Your task to perform on an android device: delete browsing data in the chrome app Image 0: 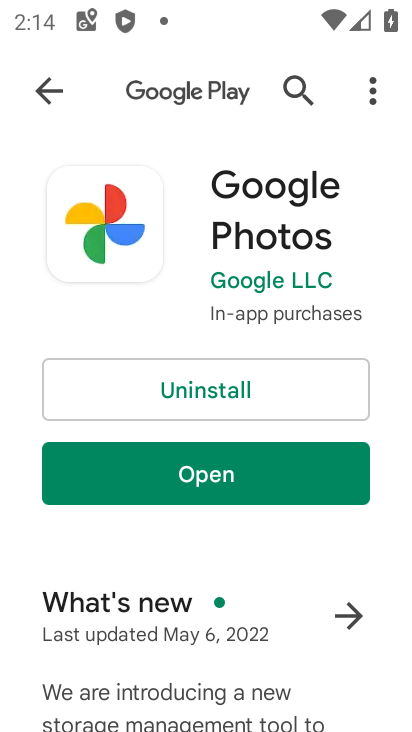
Step 0: click (216, 468)
Your task to perform on an android device: delete browsing data in the chrome app Image 1: 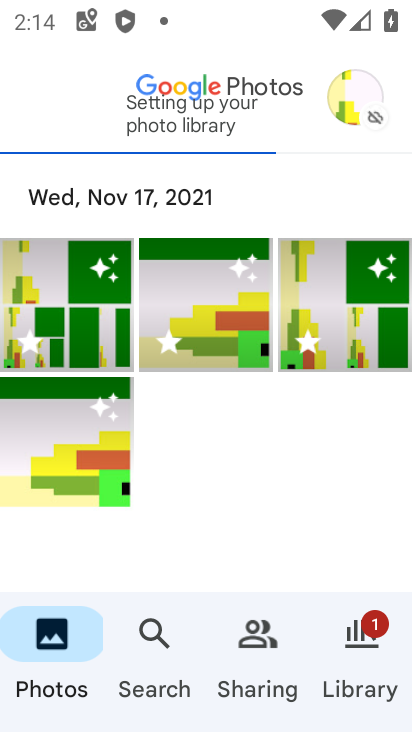
Step 1: press home button
Your task to perform on an android device: delete browsing data in the chrome app Image 2: 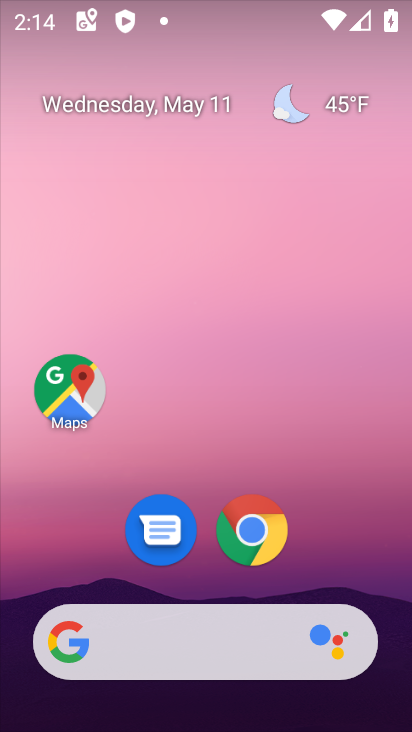
Step 2: drag from (367, 554) to (202, 8)
Your task to perform on an android device: delete browsing data in the chrome app Image 3: 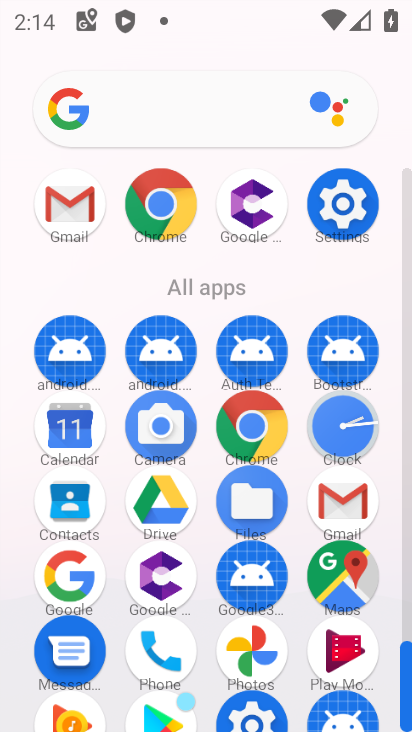
Step 3: click (163, 212)
Your task to perform on an android device: delete browsing data in the chrome app Image 4: 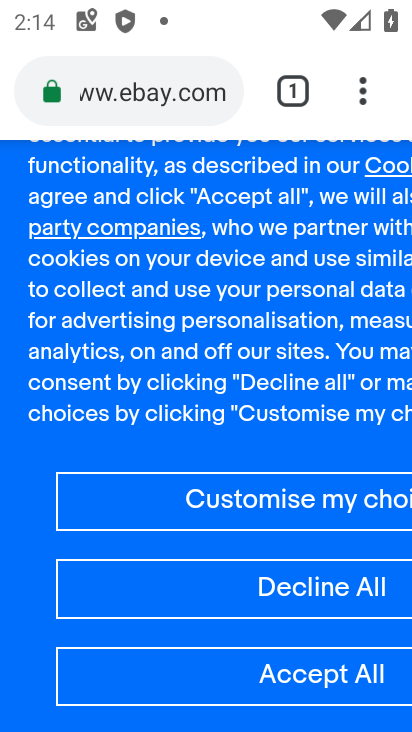
Step 4: drag from (360, 100) to (69, 508)
Your task to perform on an android device: delete browsing data in the chrome app Image 5: 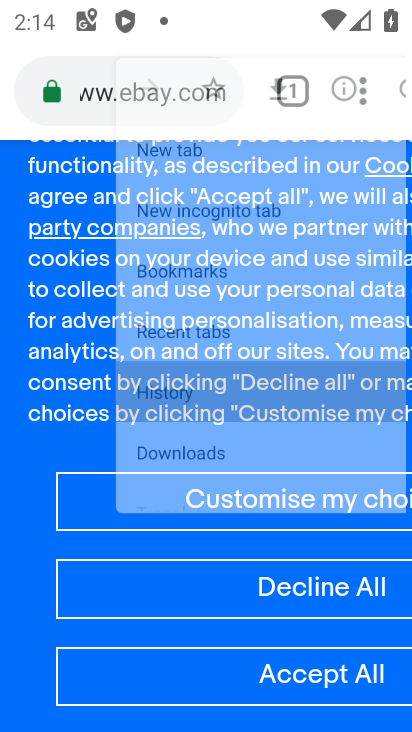
Step 5: click (72, 505)
Your task to perform on an android device: delete browsing data in the chrome app Image 6: 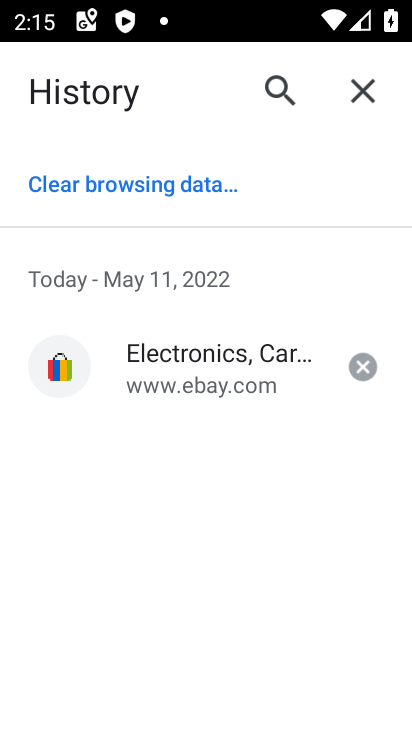
Step 6: click (357, 365)
Your task to perform on an android device: delete browsing data in the chrome app Image 7: 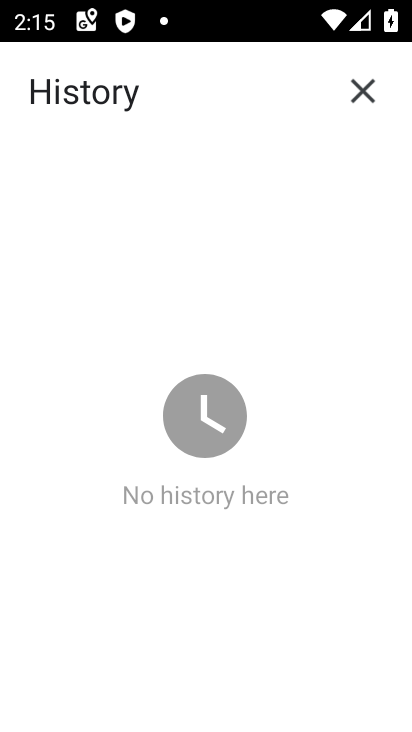
Step 7: task complete